Your task to perform on an android device: Open my contact list Image 0: 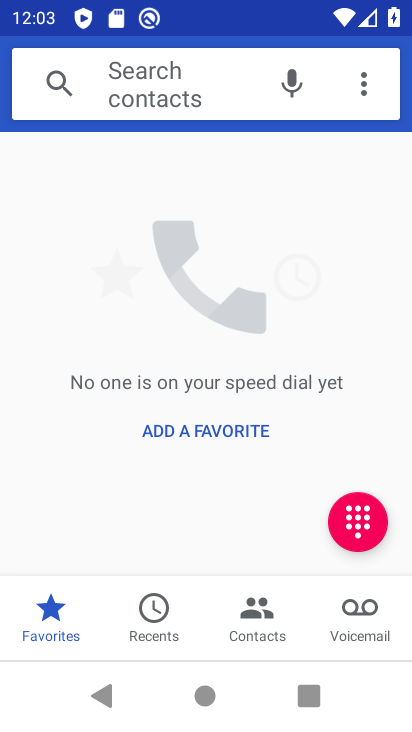
Step 0: press home button
Your task to perform on an android device: Open my contact list Image 1: 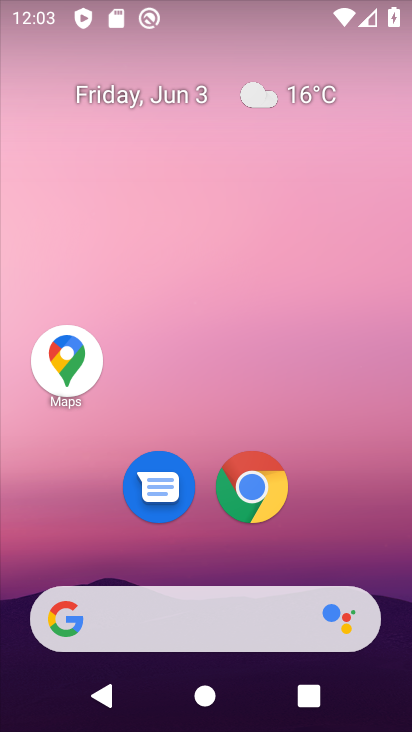
Step 1: drag from (331, 520) to (361, 23)
Your task to perform on an android device: Open my contact list Image 2: 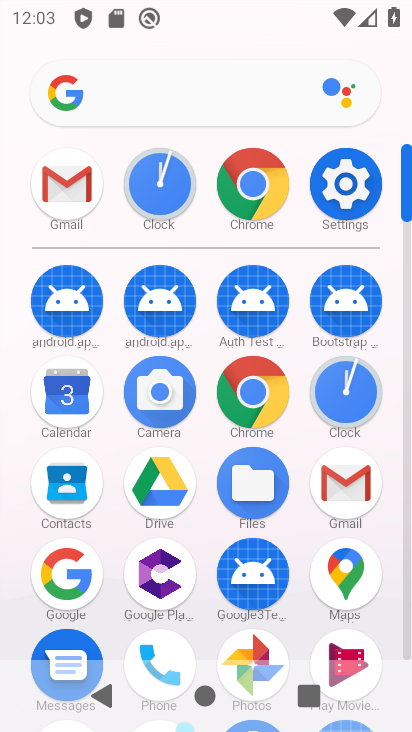
Step 2: click (67, 486)
Your task to perform on an android device: Open my contact list Image 3: 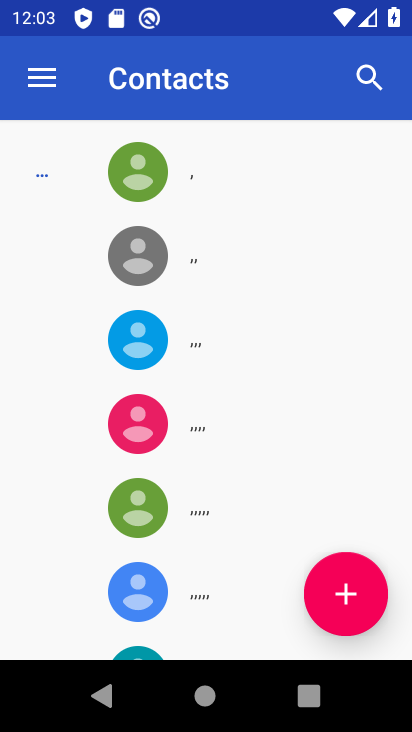
Step 3: task complete